Your task to perform on an android device: change text size in settings app Image 0: 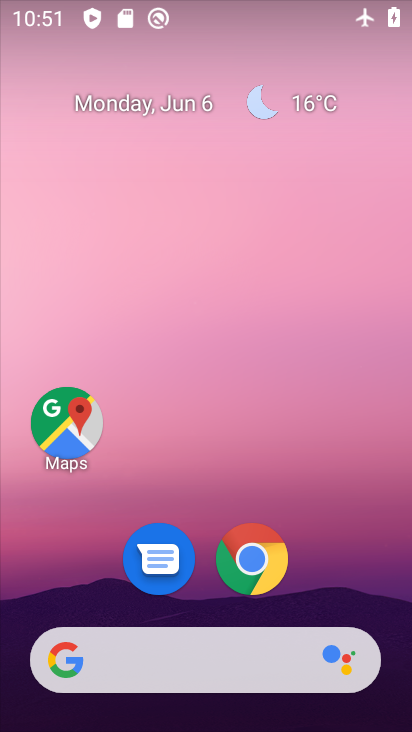
Step 0: drag from (83, 630) to (165, 191)
Your task to perform on an android device: change text size in settings app Image 1: 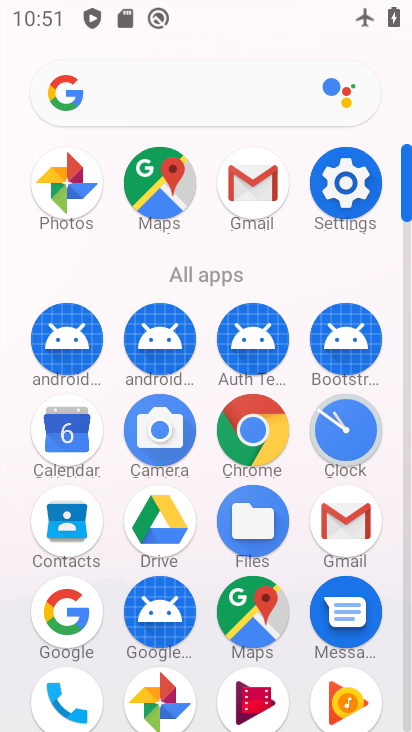
Step 1: drag from (227, 685) to (289, 386)
Your task to perform on an android device: change text size in settings app Image 2: 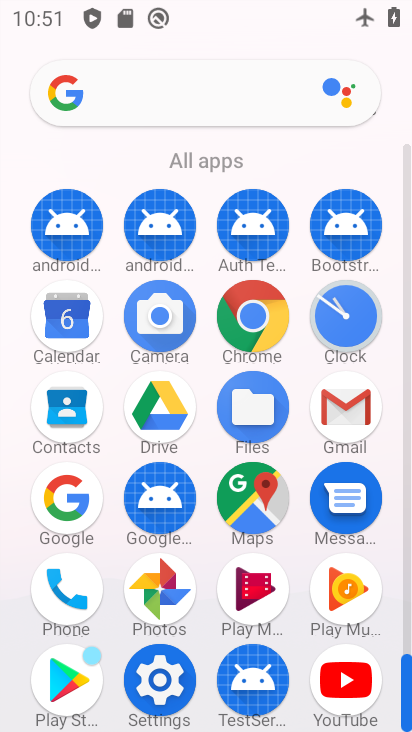
Step 2: click (166, 676)
Your task to perform on an android device: change text size in settings app Image 3: 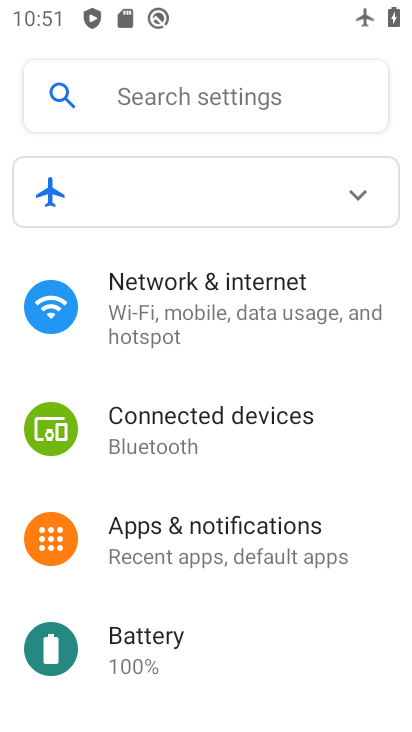
Step 3: drag from (166, 675) to (266, 325)
Your task to perform on an android device: change text size in settings app Image 4: 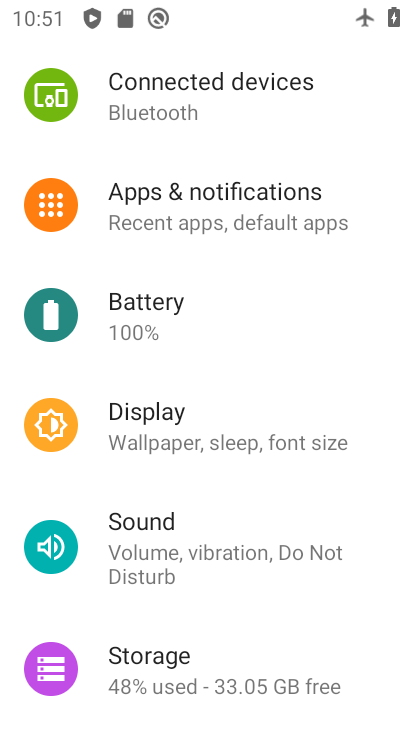
Step 4: click (200, 463)
Your task to perform on an android device: change text size in settings app Image 5: 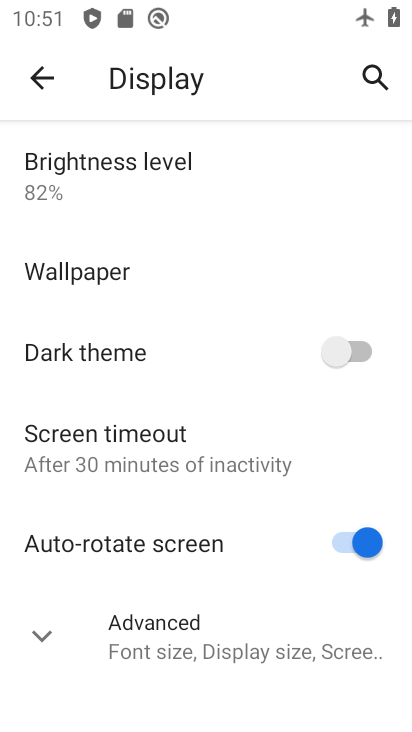
Step 5: click (205, 653)
Your task to perform on an android device: change text size in settings app Image 6: 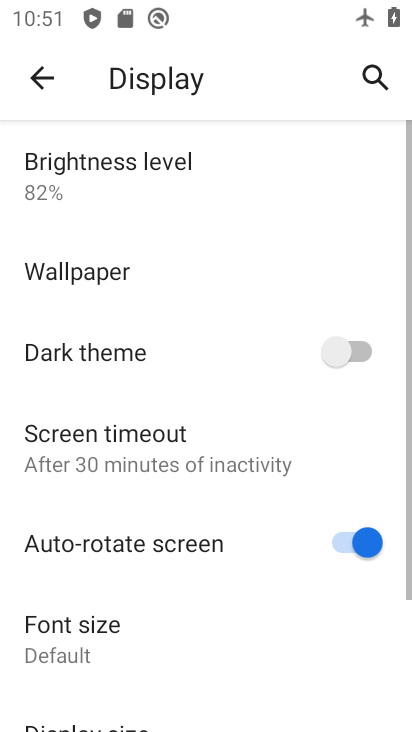
Step 6: drag from (210, 660) to (274, 310)
Your task to perform on an android device: change text size in settings app Image 7: 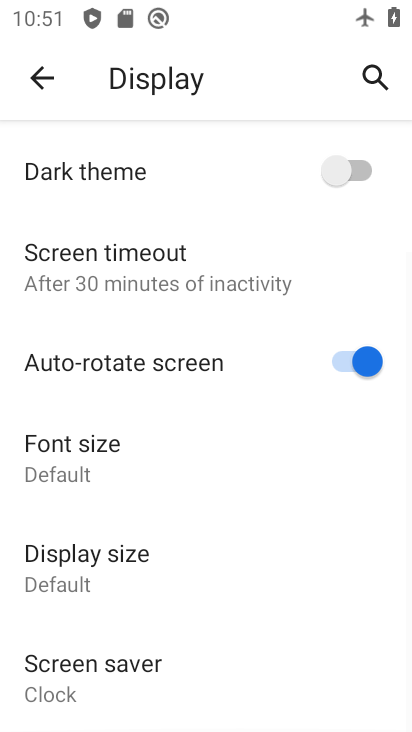
Step 7: click (154, 463)
Your task to perform on an android device: change text size in settings app Image 8: 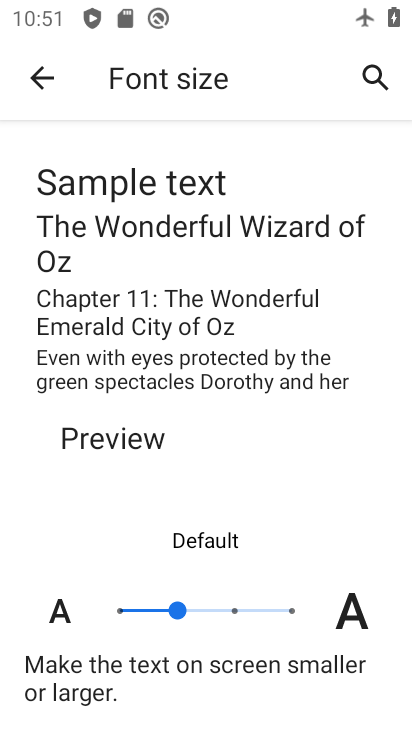
Step 8: click (228, 615)
Your task to perform on an android device: change text size in settings app Image 9: 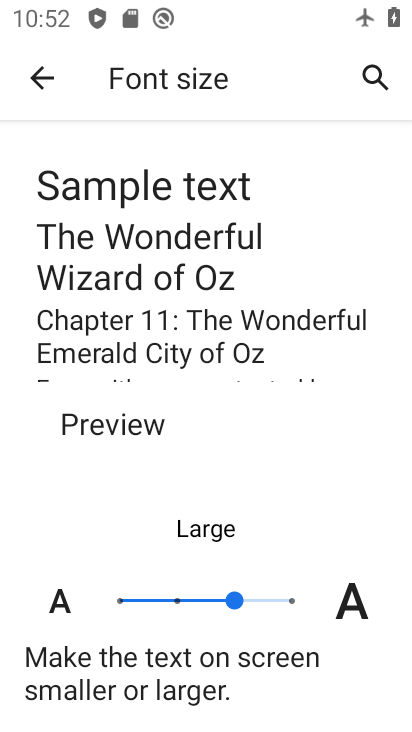
Step 9: task complete